Your task to perform on an android device: Open privacy settings Image 0: 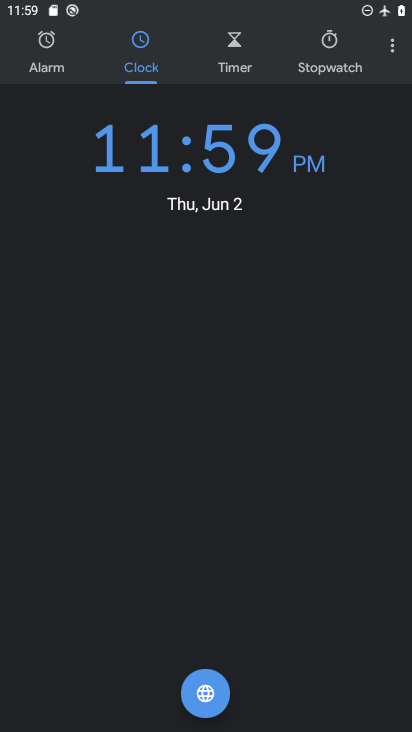
Step 0: press home button
Your task to perform on an android device: Open privacy settings Image 1: 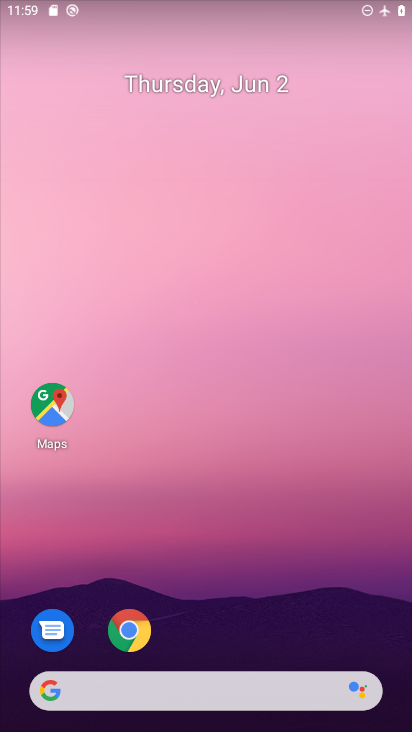
Step 1: drag from (285, 614) to (202, 175)
Your task to perform on an android device: Open privacy settings Image 2: 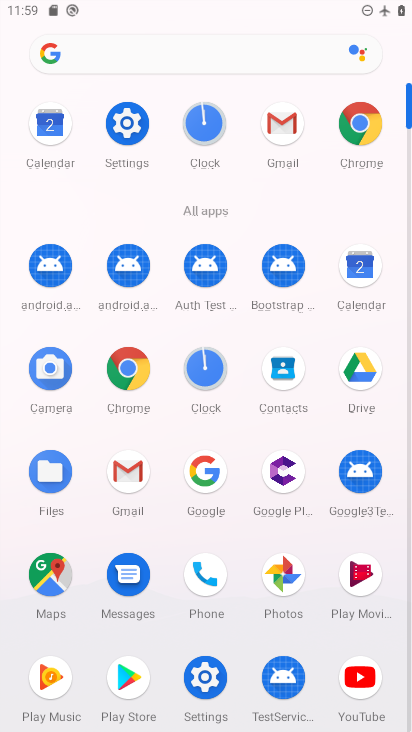
Step 2: click (131, 150)
Your task to perform on an android device: Open privacy settings Image 3: 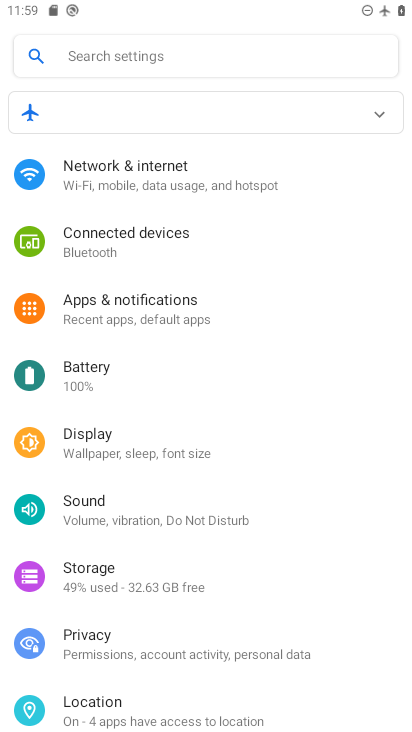
Step 3: click (242, 637)
Your task to perform on an android device: Open privacy settings Image 4: 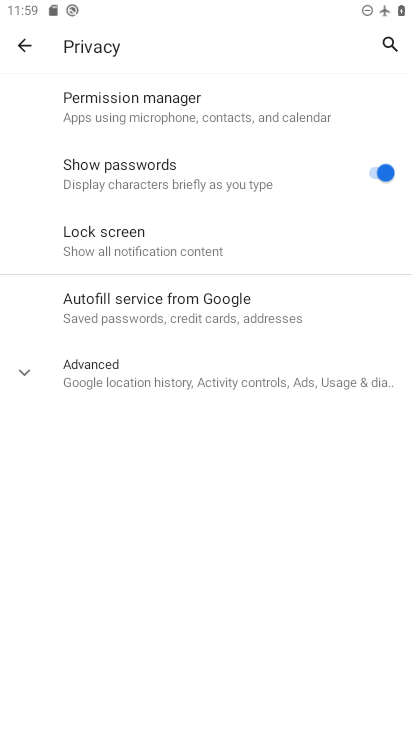
Step 4: task complete